Your task to perform on an android device: Search for seafood restaurants on Google Maps Image 0: 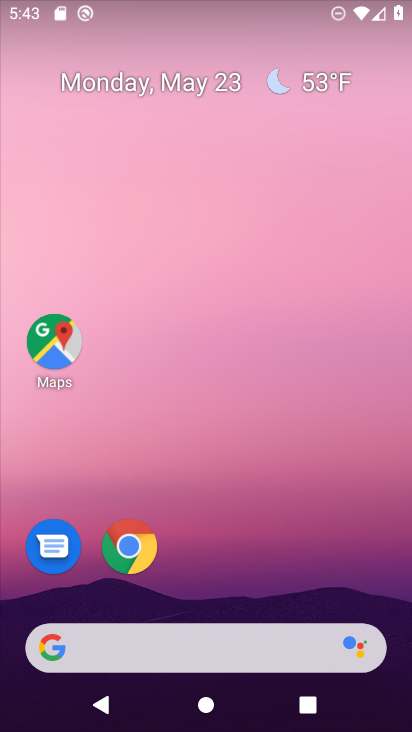
Step 0: click (53, 322)
Your task to perform on an android device: Search for seafood restaurants on Google Maps Image 1: 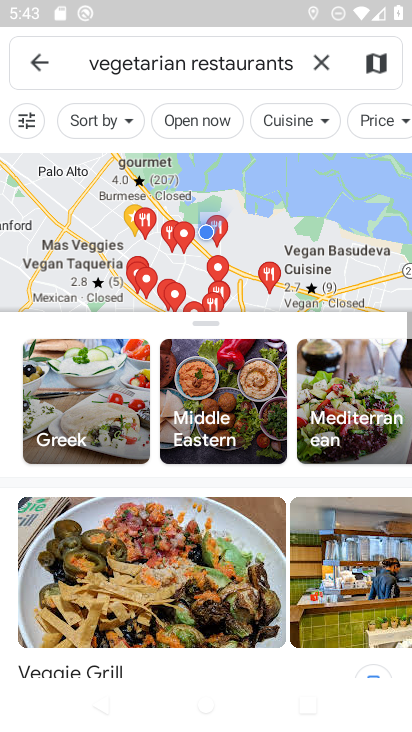
Step 1: click (322, 66)
Your task to perform on an android device: Search for seafood restaurants on Google Maps Image 2: 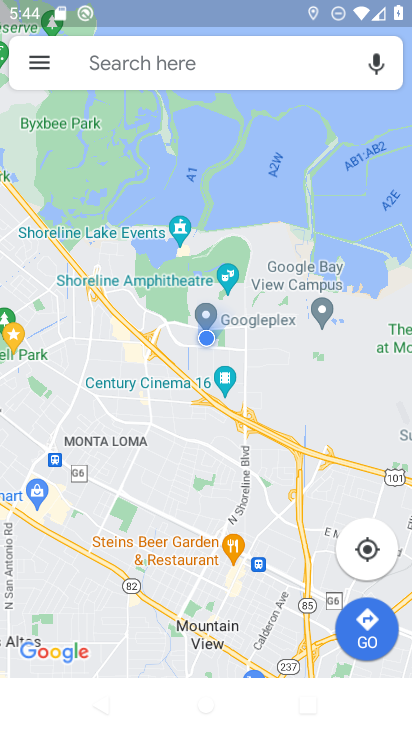
Step 2: type "seafood restaurants"
Your task to perform on an android device: Search for seafood restaurants on Google Maps Image 3: 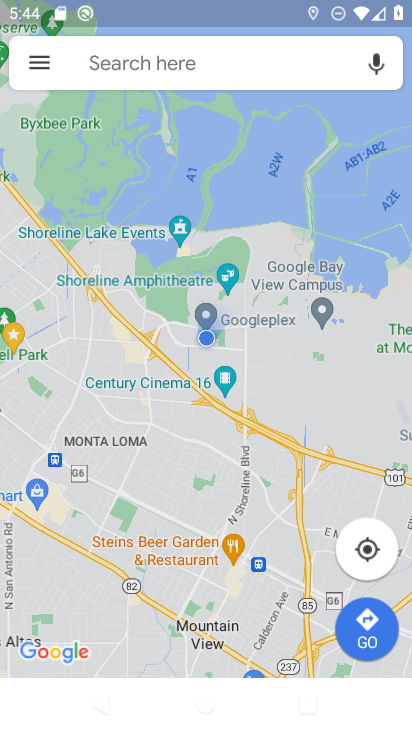
Step 3: click (162, 63)
Your task to perform on an android device: Search for seafood restaurants on Google Maps Image 4: 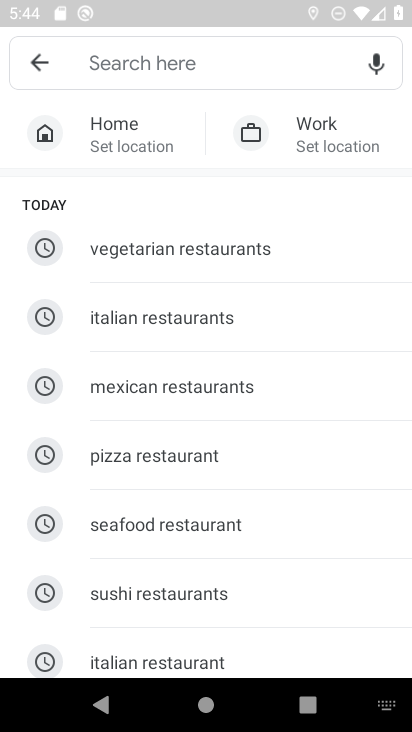
Step 4: click (171, 534)
Your task to perform on an android device: Search for seafood restaurants on Google Maps Image 5: 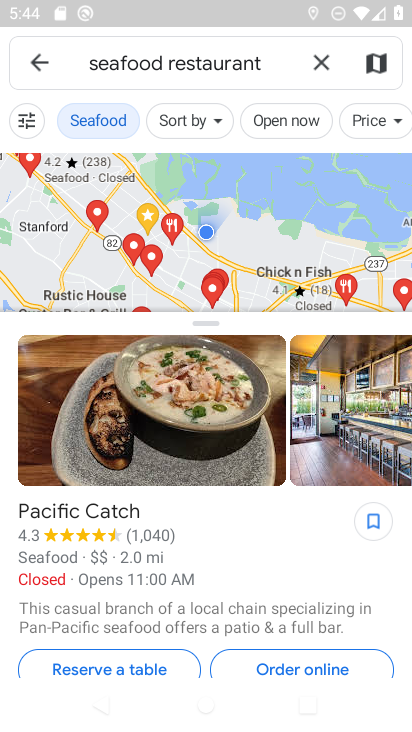
Step 5: task complete